Your task to perform on an android device: open app "Adobe Acrobat Reader: Edit PDF" Image 0: 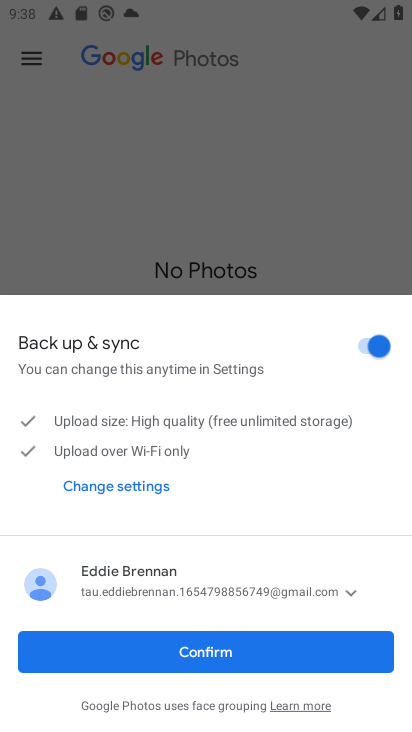
Step 0: press home button
Your task to perform on an android device: open app "Adobe Acrobat Reader: Edit PDF" Image 1: 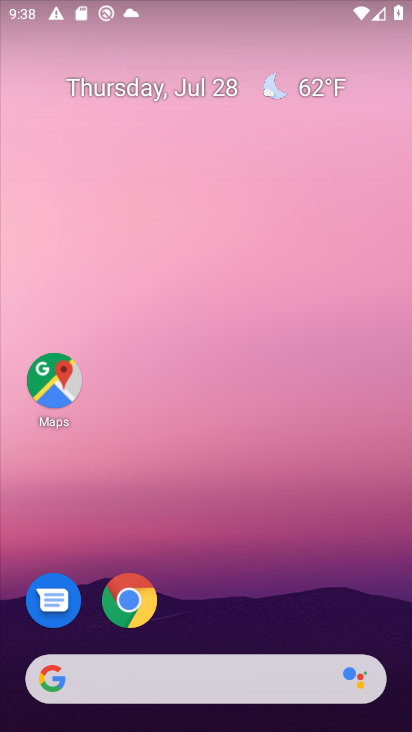
Step 1: drag from (202, 642) to (247, 13)
Your task to perform on an android device: open app "Adobe Acrobat Reader: Edit PDF" Image 2: 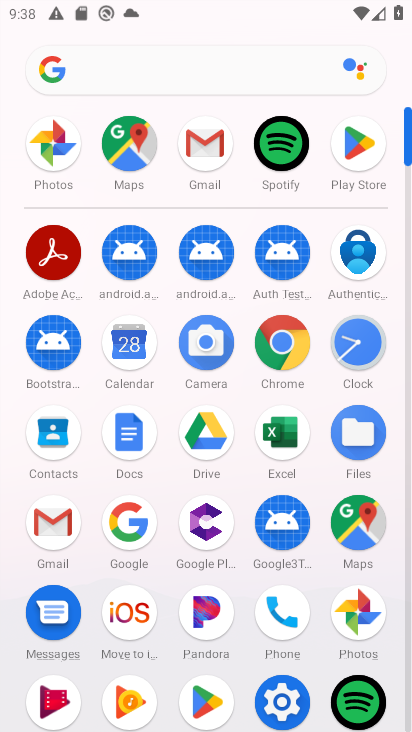
Step 2: click (44, 257)
Your task to perform on an android device: open app "Adobe Acrobat Reader: Edit PDF" Image 3: 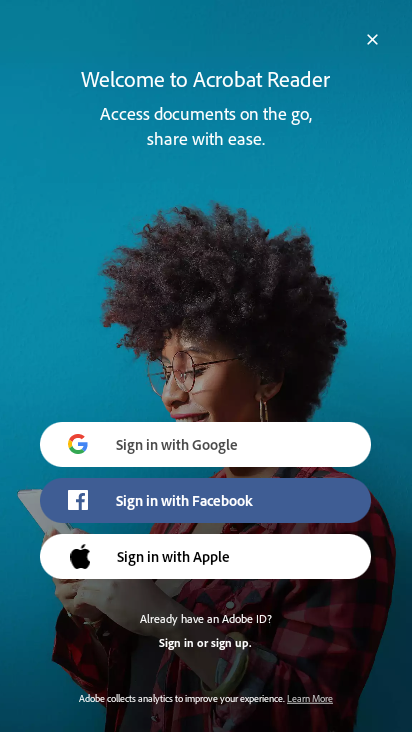
Step 3: task complete